Your task to perform on an android device: Show the shopping cart on ebay.com. Search for corsair k70 on ebay.com, select the first entry, and add it to the cart. Image 0: 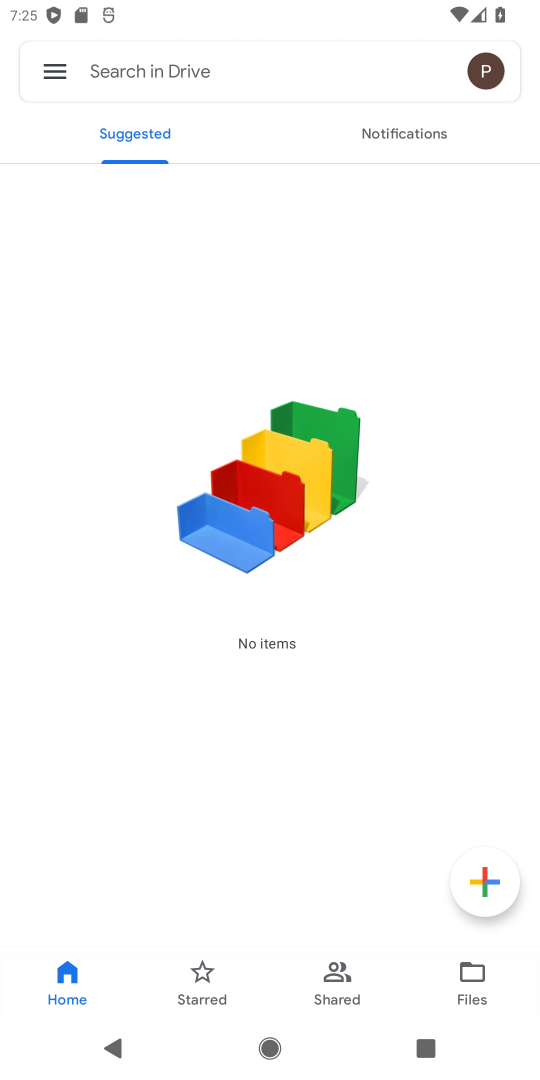
Step 0: press home button
Your task to perform on an android device: Show the shopping cart on ebay.com. Search for corsair k70 on ebay.com, select the first entry, and add it to the cart. Image 1: 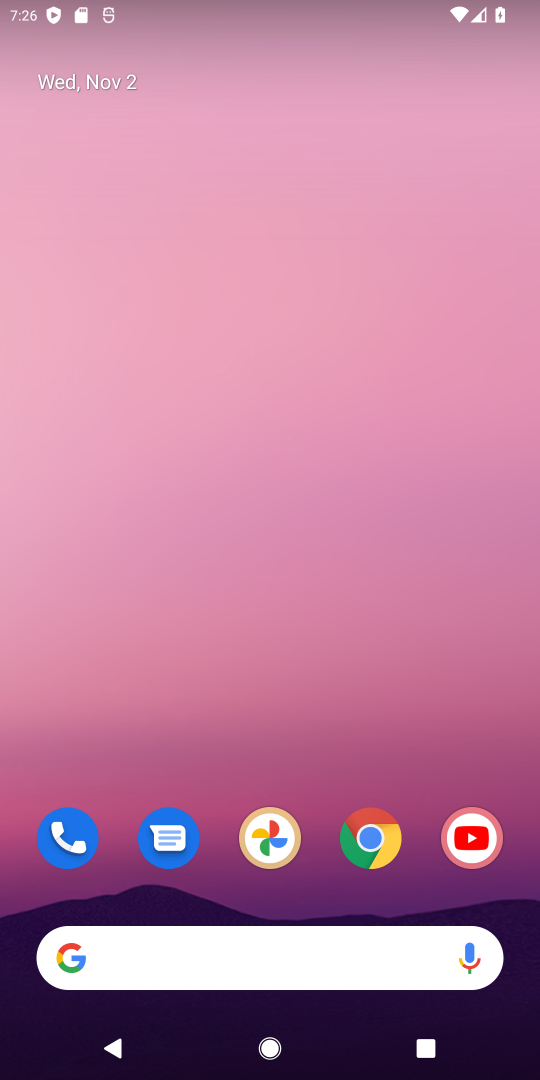
Step 1: click (380, 855)
Your task to perform on an android device: Show the shopping cart on ebay.com. Search for corsair k70 on ebay.com, select the first entry, and add it to the cart. Image 2: 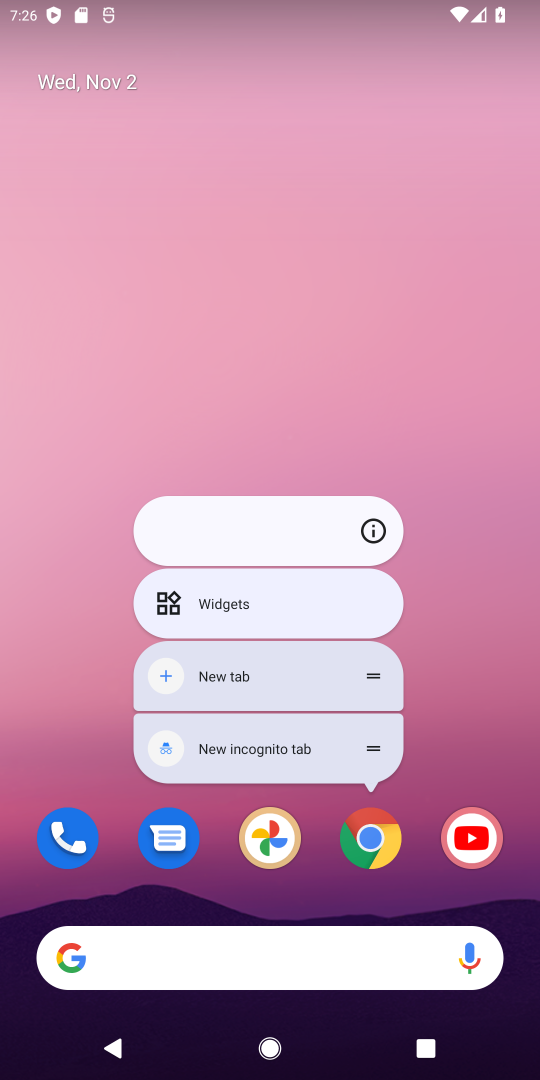
Step 2: click (383, 843)
Your task to perform on an android device: Show the shopping cart on ebay.com. Search for corsair k70 on ebay.com, select the first entry, and add it to the cart. Image 3: 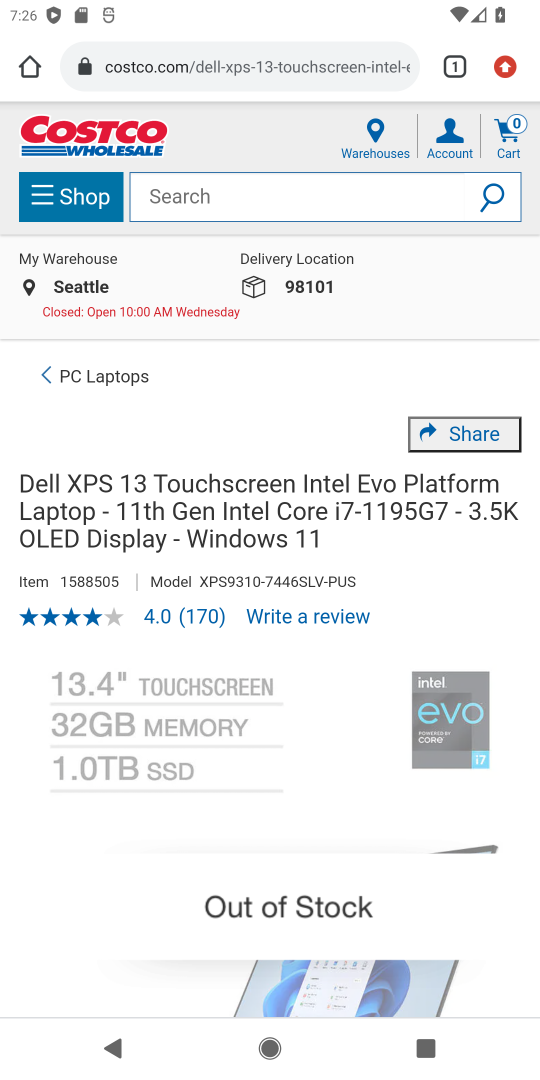
Step 3: click (257, 58)
Your task to perform on an android device: Show the shopping cart on ebay.com. Search for corsair k70 on ebay.com, select the first entry, and add it to the cart. Image 4: 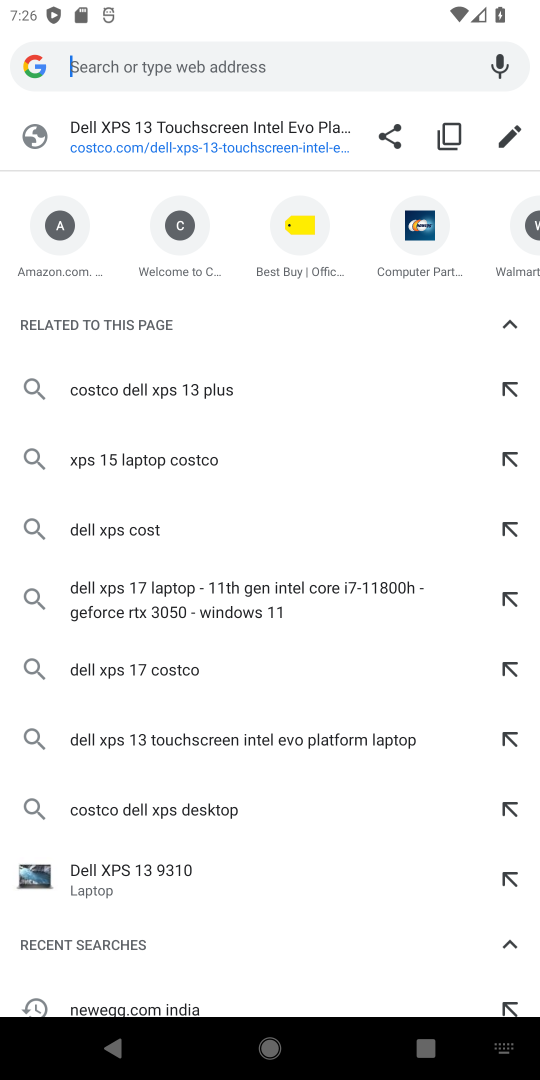
Step 4: type "ebay.com"
Your task to perform on an android device: Show the shopping cart on ebay.com. Search for corsair k70 on ebay.com, select the first entry, and add it to the cart. Image 5: 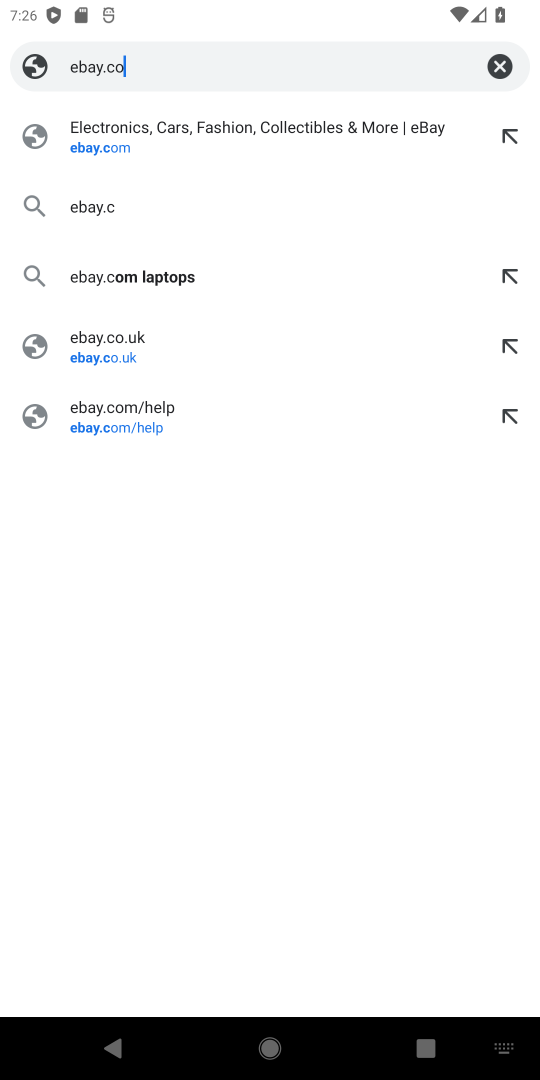
Step 5: type ""
Your task to perform on an android device: Show the shopping cart on ebay.com. Search for corsair k70 on ebay.com, select the first entry, and add it to the cart. Image 6: 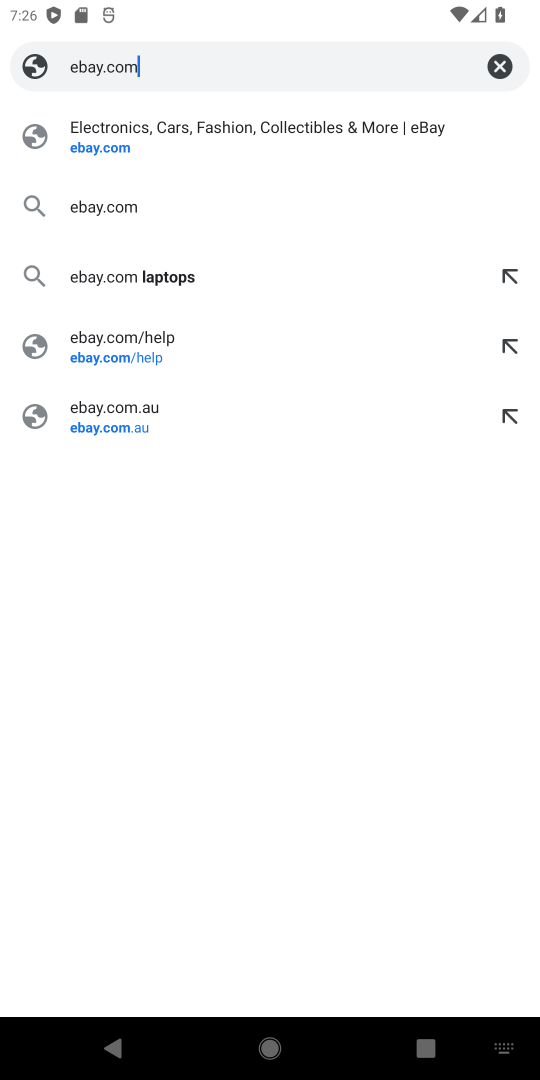
Step 6: press enter
Your task to perform on an android device: Show the shopping cart on ebay.com. Search for corsair k70 on ebay.com, select the first entry, and add it to the cart. Image 7: 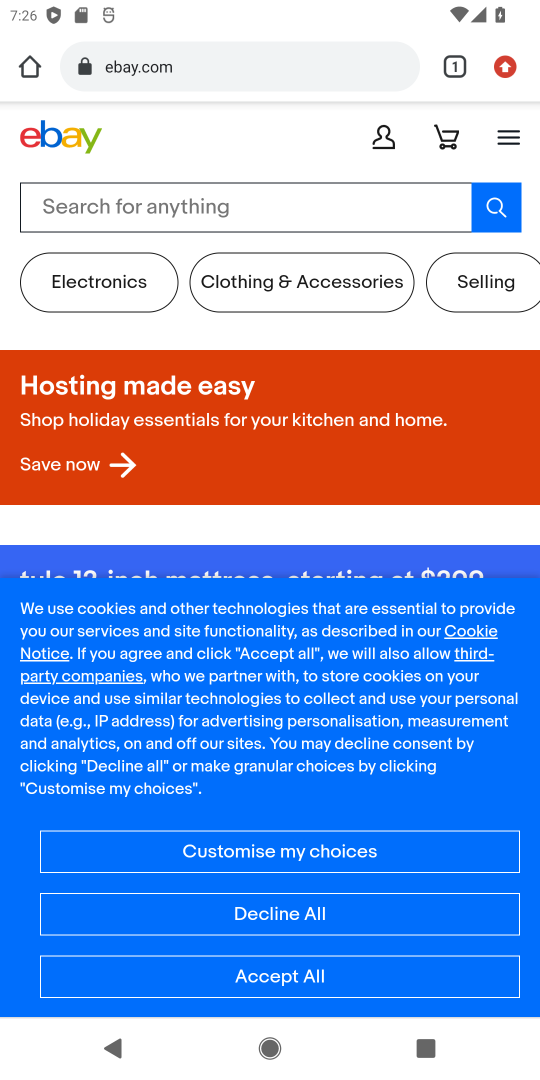
Step 7: click (442, 132)
Your task to perform on an android device: Show the shopping cart on ebay.com. Search for corsair k70 on ebay.com, select the first entry, and add it to the cart. Image 8: 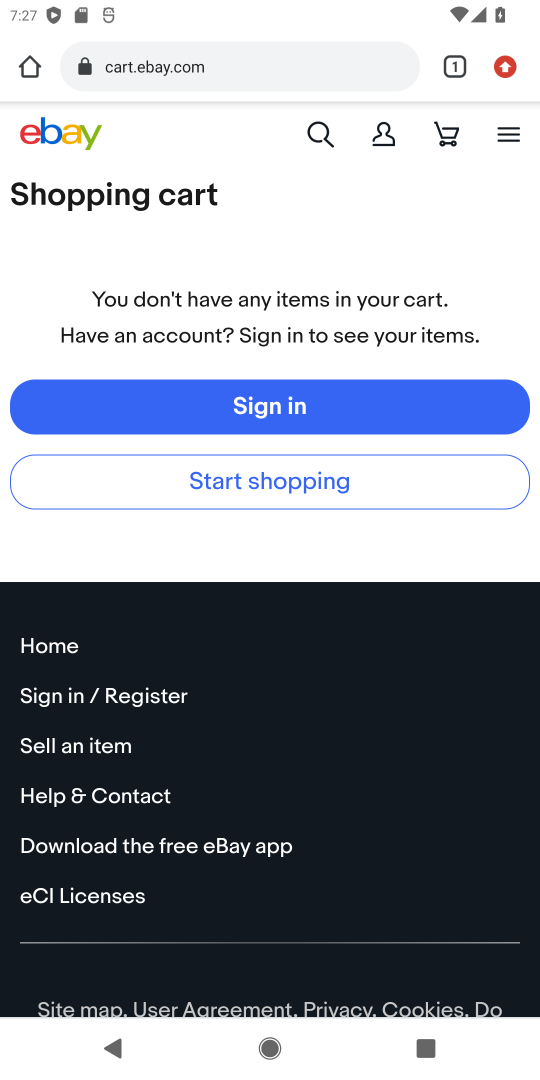
Step 8: click (331, 138)
Your task to perform on an android device: Show the shopping cart on ebay.com. Search for corsair k70 on ebay.com, select the first entry, and add it to the cart. Image 9: 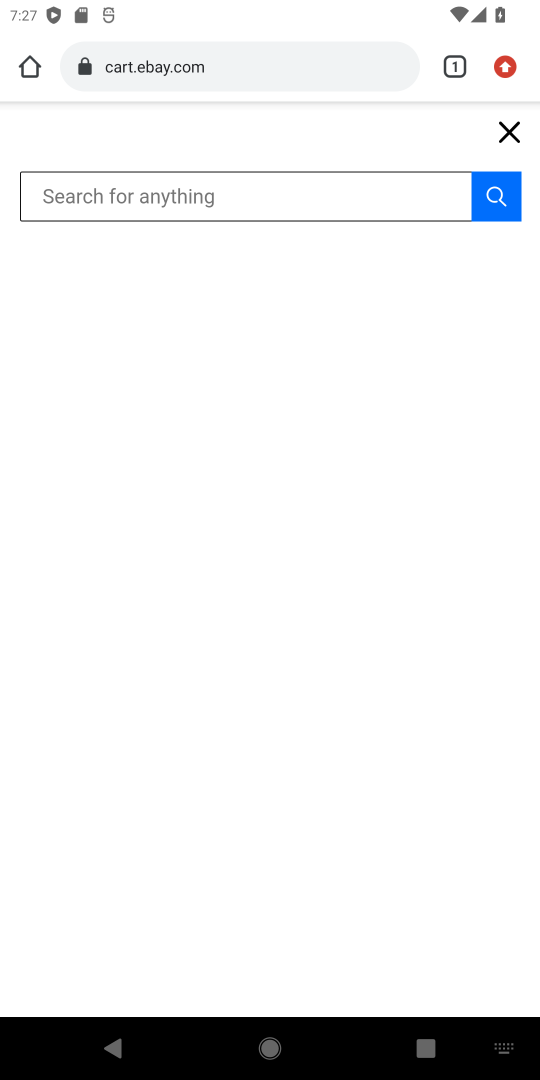
Step 9: type "corsair k70"
Your task to perform on an android device: Show the shopping cart on ebay.com. Search for corsair k70 on ebay.com, select the first entry, and add it to the cart. Image 10: 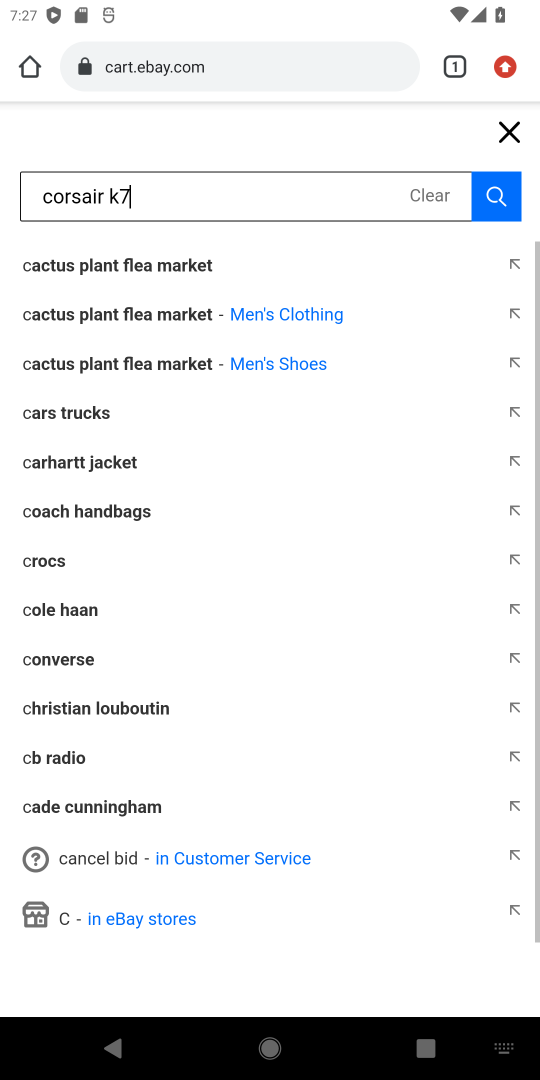
Step 10: type ""
Your task to perform on an android device: Show the shopping cart on ebay.com. Search for corsair k70 on ebay.com, select the first entry, and add it to the cart. Image 11: 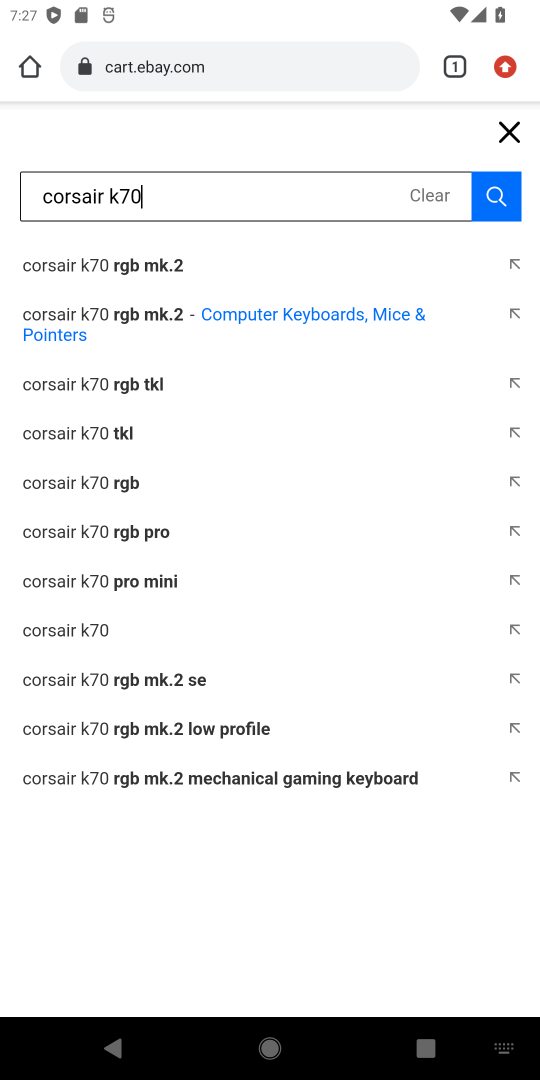
Step 11: press enter
Your task to perform on an android device: Show the shopping cart on ebay.com. Search for corsair k70 on ebay.com, select the first entry, and add it to the cart. Image 12: 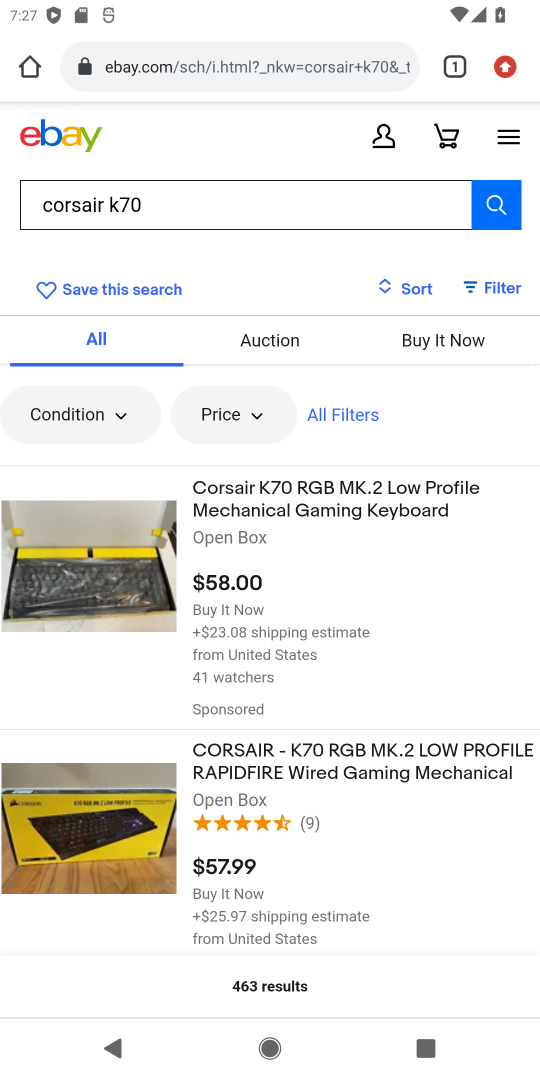
Step 12: click (311, 509)
Your task to perform on an android device: Show the shopping cart on ebay.com. Search for corsair k70 on ebay.com, select the first entry, and add it to the cart. Image 13: 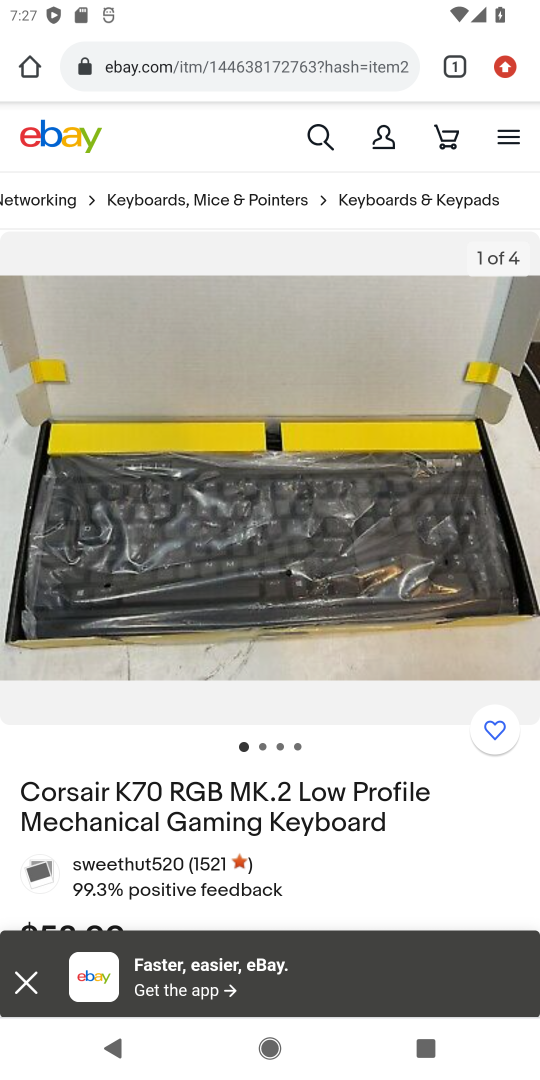
Step 13: drag from (310, 813) to (303, 606)
Your task to perform on an android device: Show the shopping cart on ebay.com. Search for corsair k70 on ebay.com, select the first entry, and add it to the cart. Image 14: 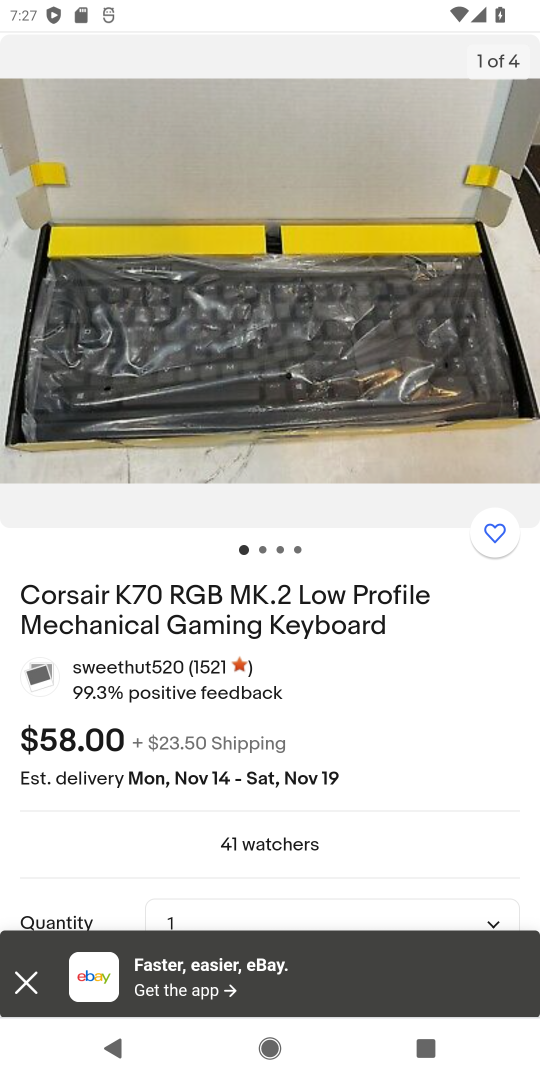
Step 14: click (22, 989)
Your task to perform on an android device: Show the shopping cart on ebay.com. Search for corsair k70 on ebay.com, select the first entry, and add it to the cart. Image 15: 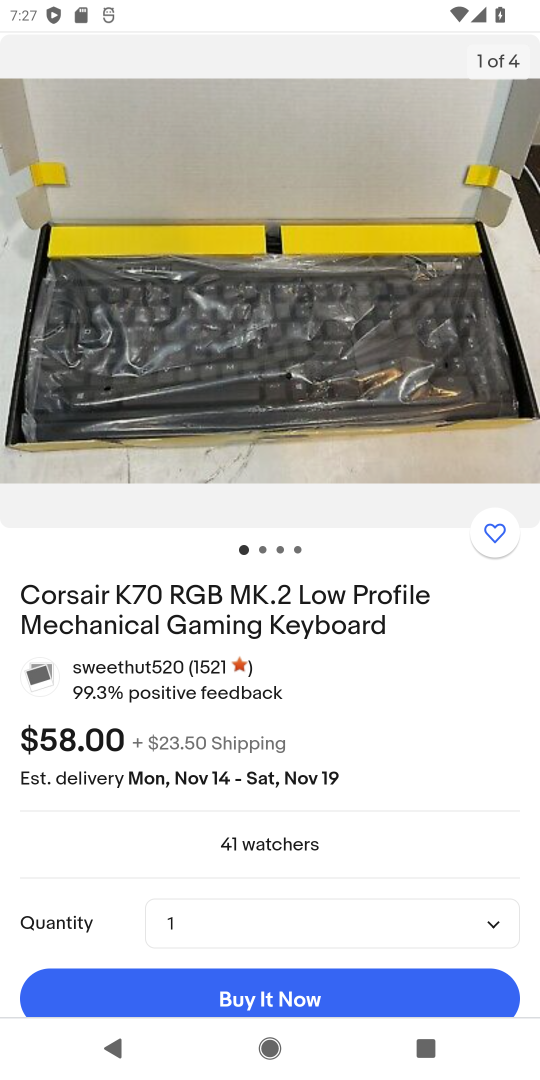
Step 15: drag from (345, 875) to (344, 575)
Your task to perform on an android device: Show the shopping cart on ebay.com. Search for corsair k70 on ebay.com, select the first entry, and add it to the cart. Image 16: 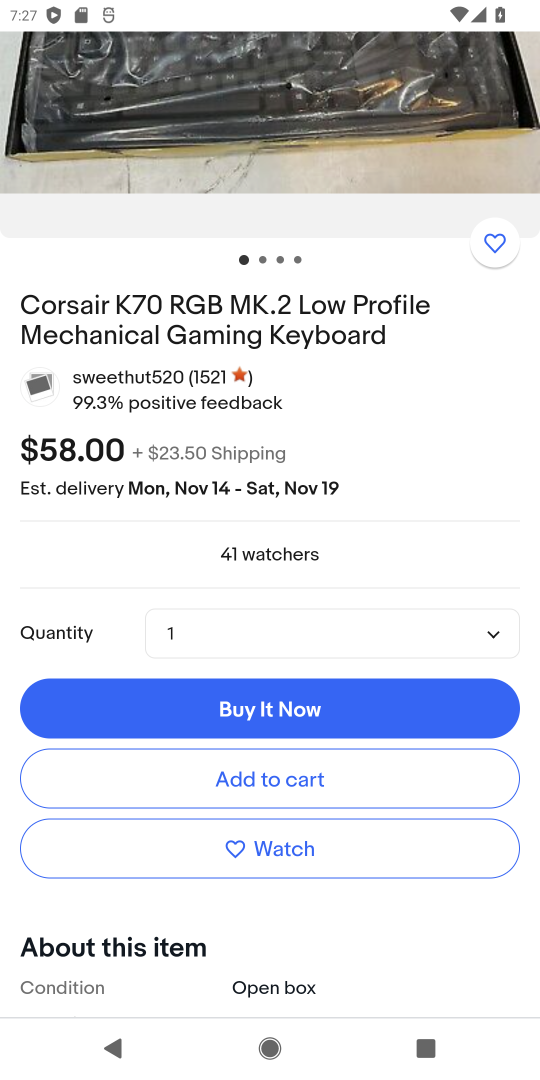
Step 16: click (338, 788)
Your task to perform on an android device: Show the shopping cart on ebay.com. Search for corsair k70 on ebay.com, select the first entry, and add it to the cart. Image 17: 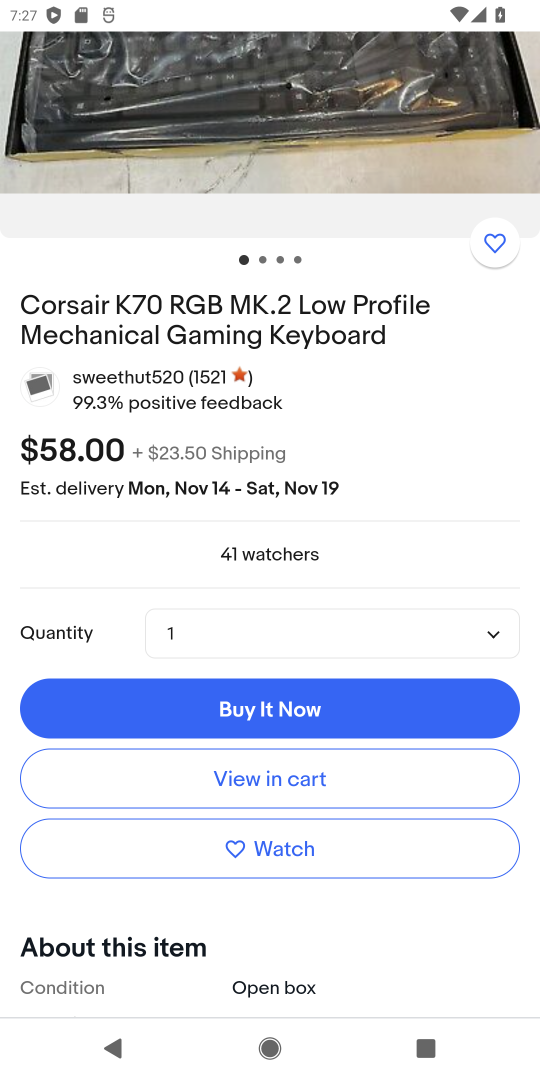
Step 17: click (338, 788)
Your task to perform on an android device: Show the shopping cart on ebay.com. Search for corsair k70 on ebay.com, select the first entry, and add it to the cart. Image 18: 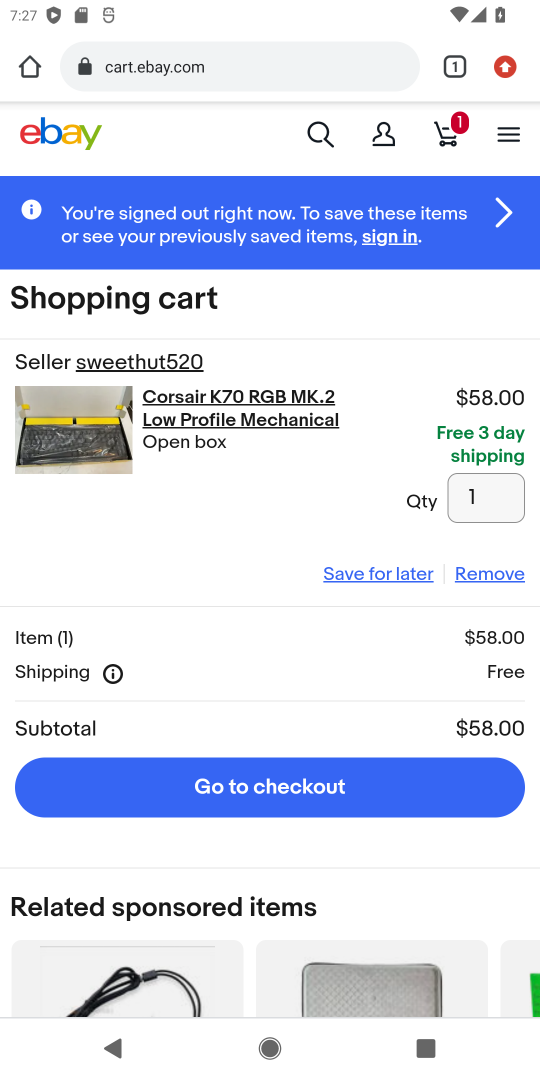
Step 18: click (448, 787)
Your task to perform on an android device: Show the shopping cart on ebay.com. Search for corsair k70 on ebay.com, select the first entry, and add it to the cart. Image 19: 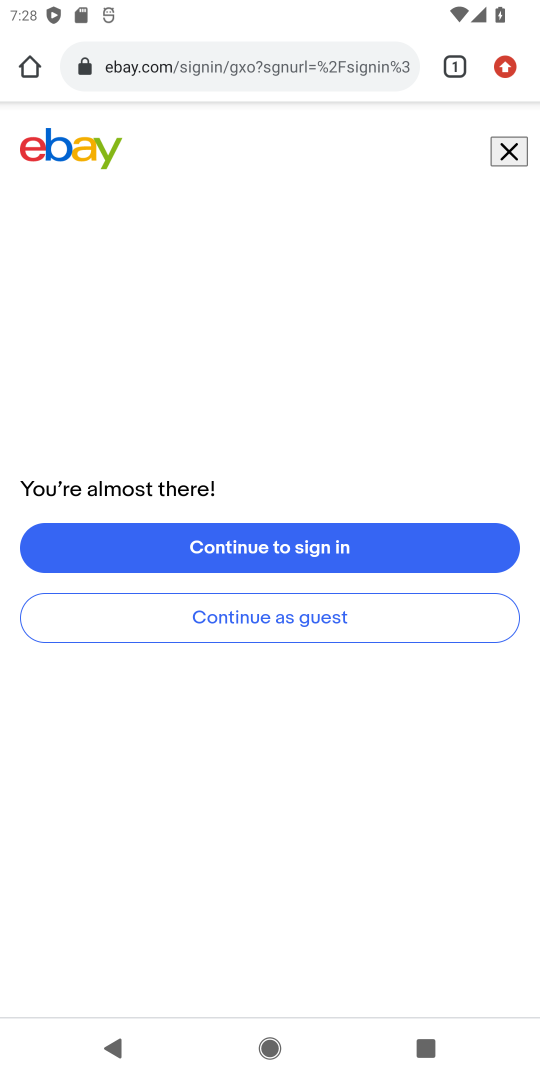
Step 19: click (324, 627)
Your task to perform on an android device: Show the shopping cart on ebay.com. Search for corsair k70 on ebay.com, select the first entry, and add it to the cart. Image 20: 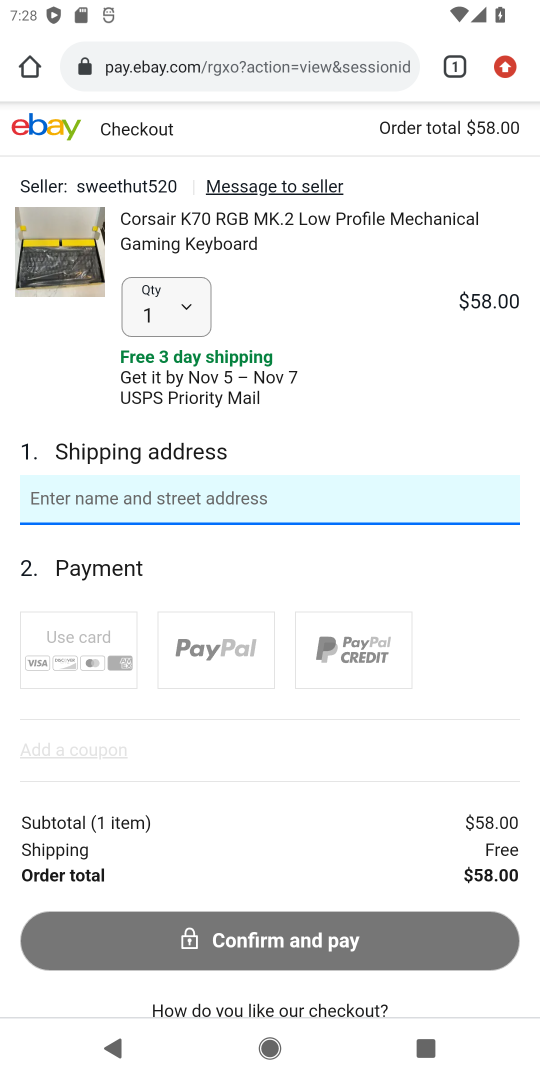
Step 20: task complete